Your task to perform on an android device: turn on translation in the chrome app Image 0: 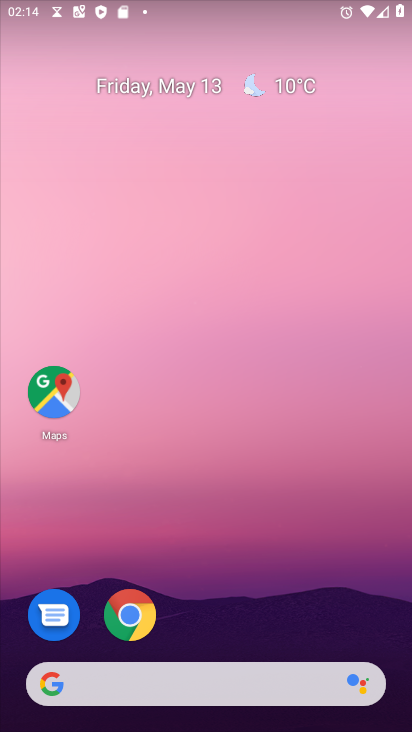
Step 0: click (126, 608)
Your task to perform on an android device: turn on translation in the chrome app Image 1: 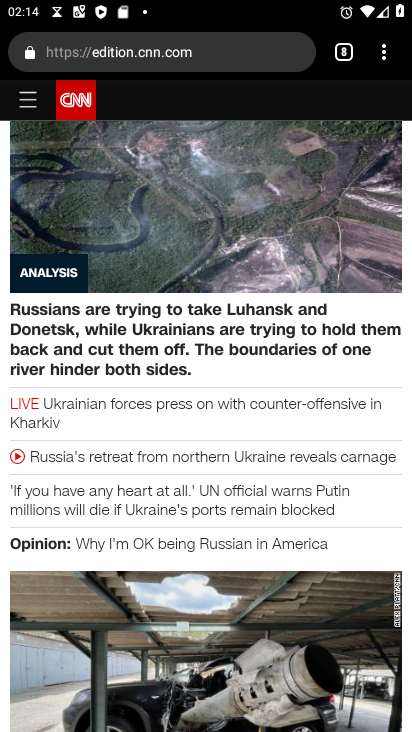
Step 1: click (383, 50)
Your task to perform on an android device: turn on translation in the chrome app Image 2: 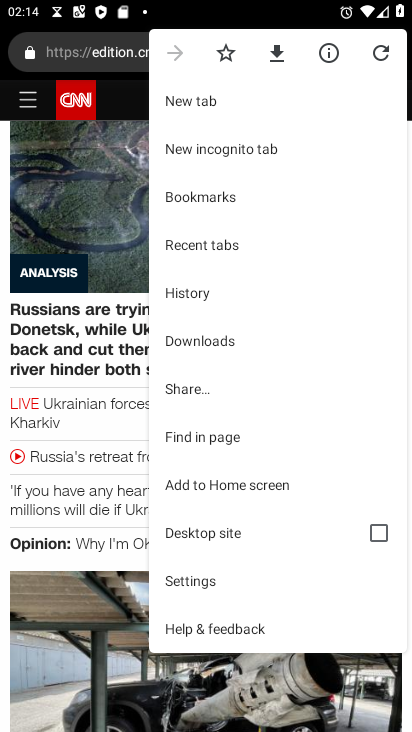
Step 2: click (194, 579)
Your task to perform on an android device: turn on translation in the chrome app Image 3: 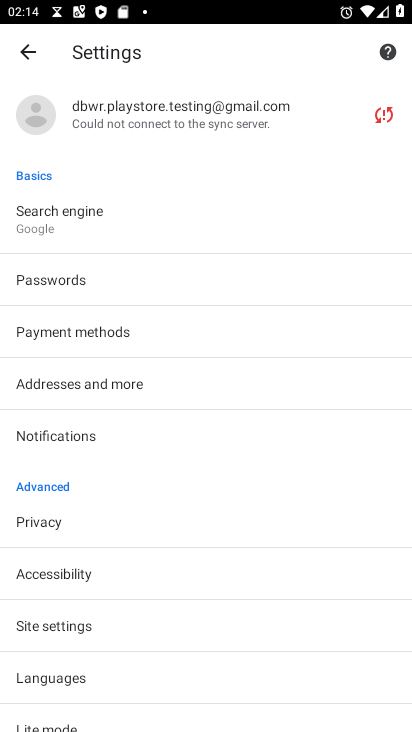
Step 3: click (60, 679)
Your task to perform on an android device: turn on translation in the chrome app Image 4: 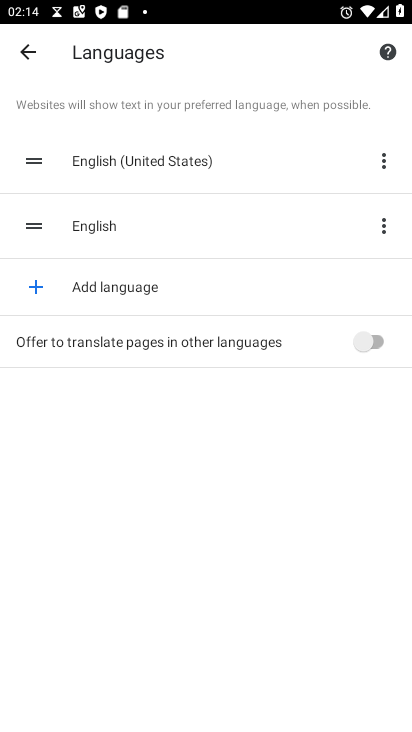
Step 4: click (357, 337)
Your task to perform on an android device: turn on translation in the chrome app Image 5: 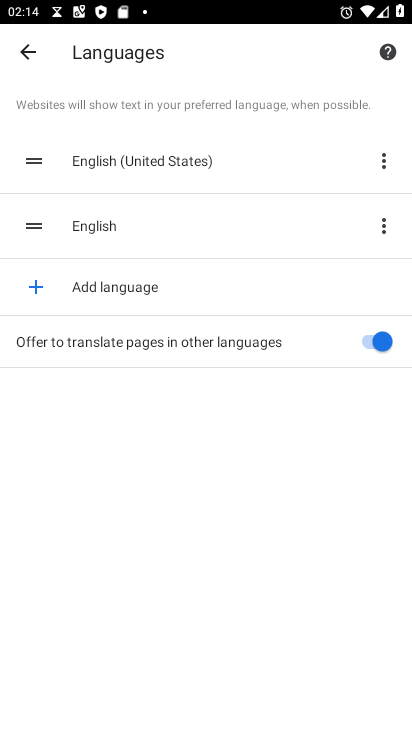
Step 5: task complete